Your task to perform on an android device: Go to Reddit.com Image 0: 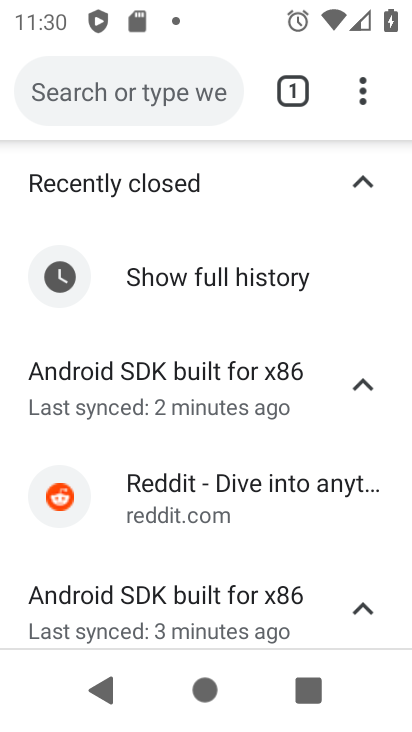
Step 0: press home button
Your task to perform on an android device: Go to Reddit.com Image 1: 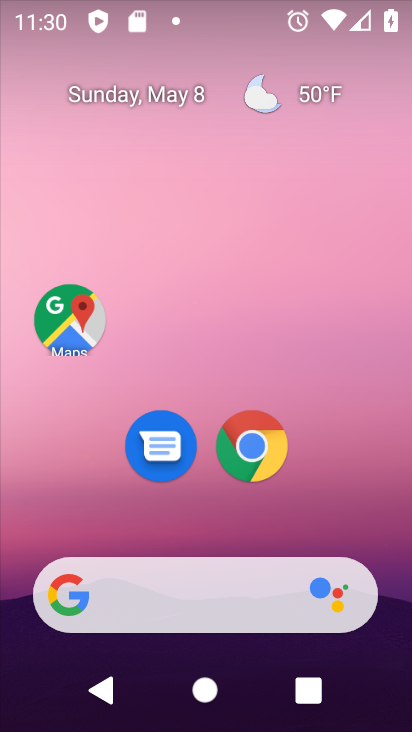
Step 1: click (238, 442)
Your task to perform on an android device: Go to Reddit.com Image 2: 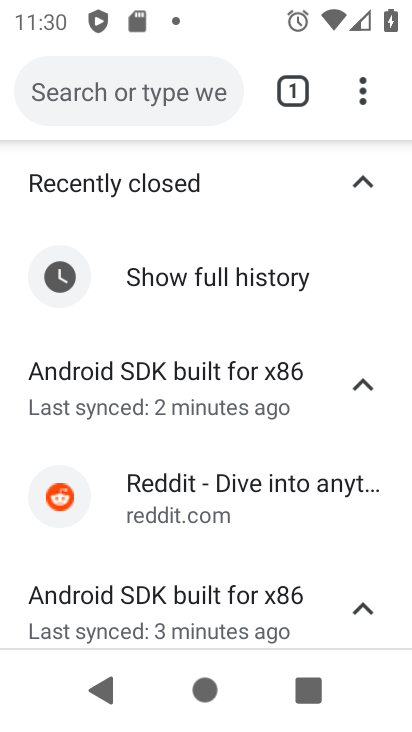
Step 2: click (153, 114)
Your task to perform on an android device: Go to Reddit.com Image 3: 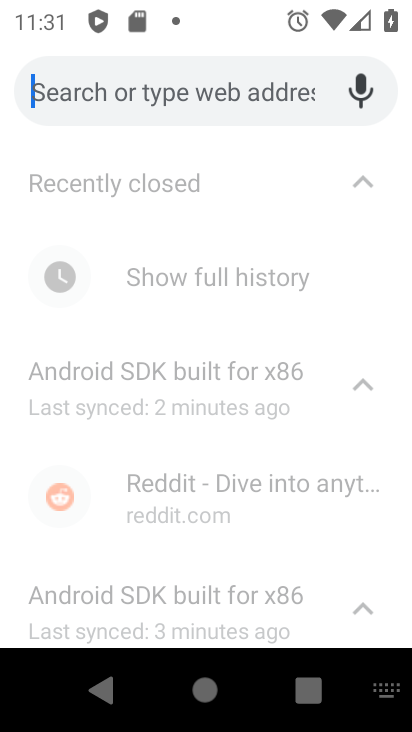
Step 3: type "Reddit.com"
Your task to perform on an android device: Go to Reddit.com Image 4: 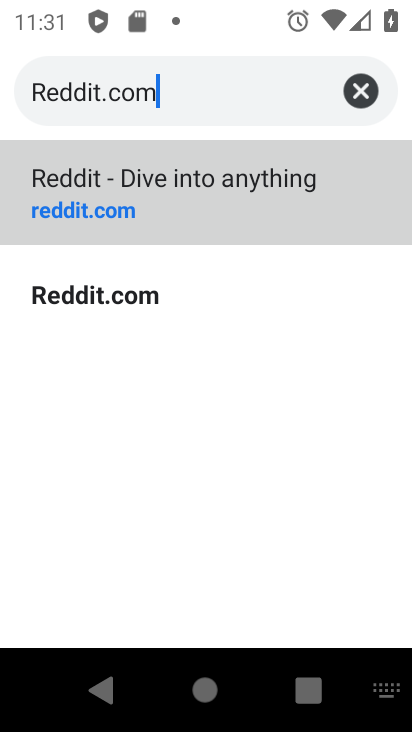
Step 4: click (64, 186)
Your task to perform on an android device: Go to Reddit.com Image 5: 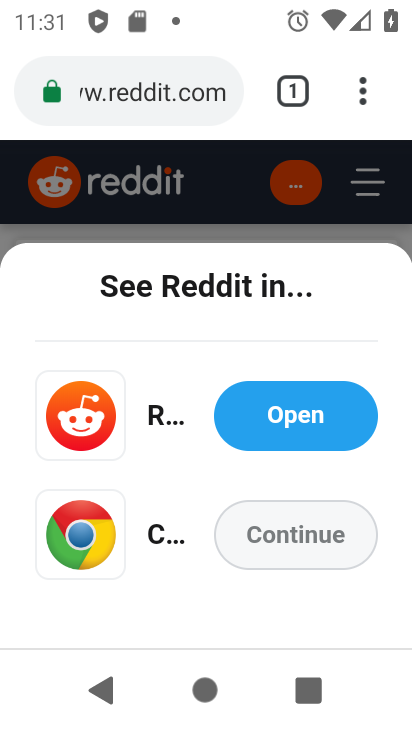
Step 5: task complete